Your task to perform on an android device: change text size in settings app Image 0: 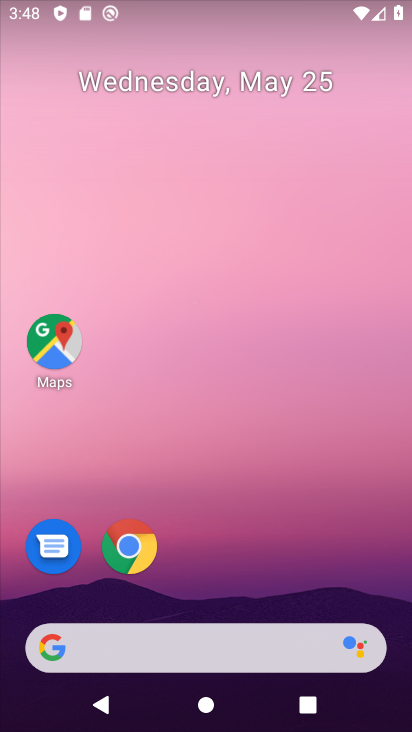
Step 0: drag from (225, 558) to (188, 58)
Your task to perform on an android device: change text size in settings app Image 1: 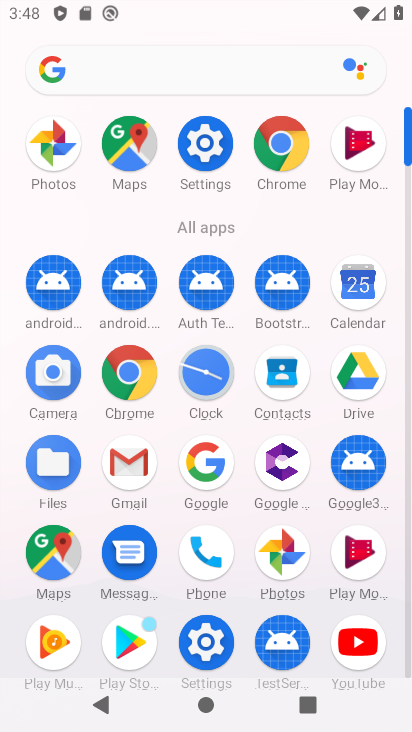
Step 1: click (208, 154)
Your task to perform on an android device: change text size in settings app Image 2: 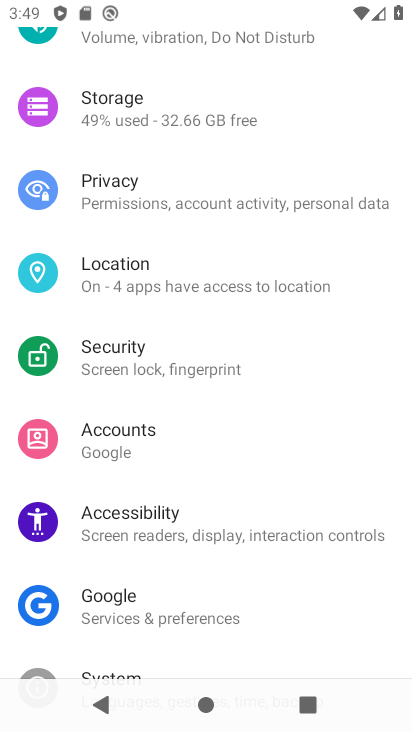
Step 2: drag from (226, 256) to (228, 688)
Your task to perform on an android device: change text size in settings app Image 3: 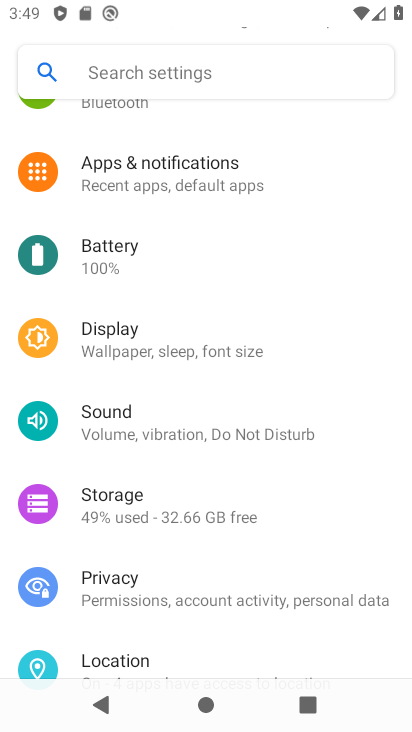
Step 3: click (182, 332)
Your task to perform on an android device: change text size in settings app Image 4: 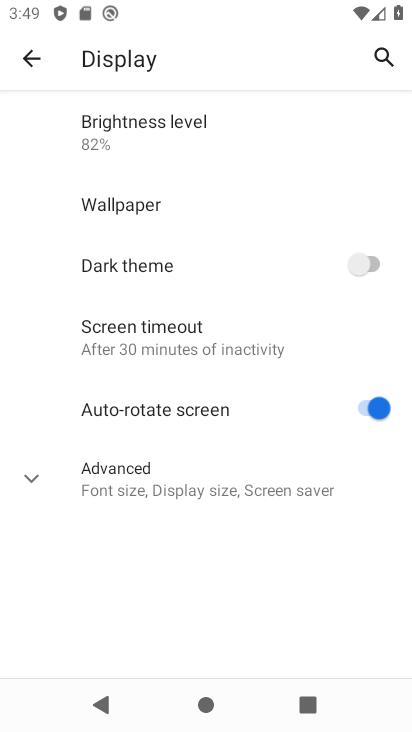
Step 4: click (119, 492)
Your task to perform on an android device: change text size in settings app Image 5: 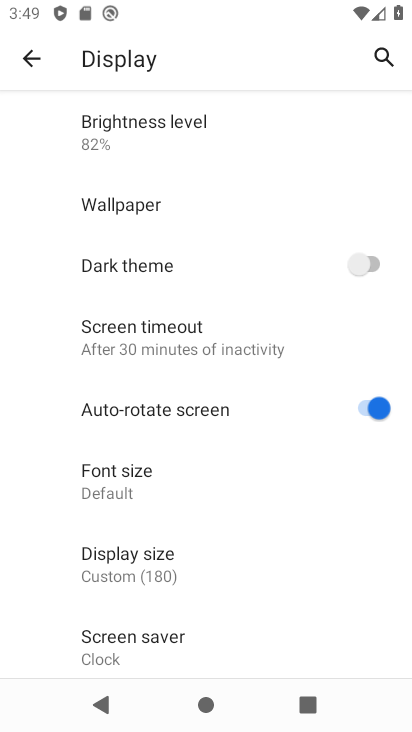
Step 5: click (105, 473)
Your task to perform on an android device: change text size in settings app Image 6: 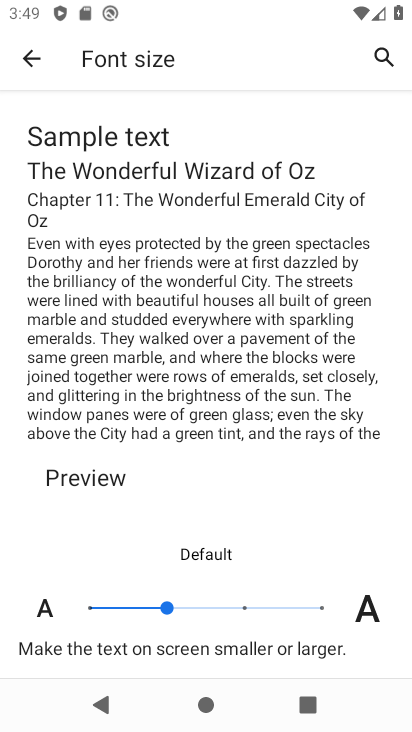
Step 6: click (255, 609)
Your task to perform on an android device: change text size in settings app Image 7: 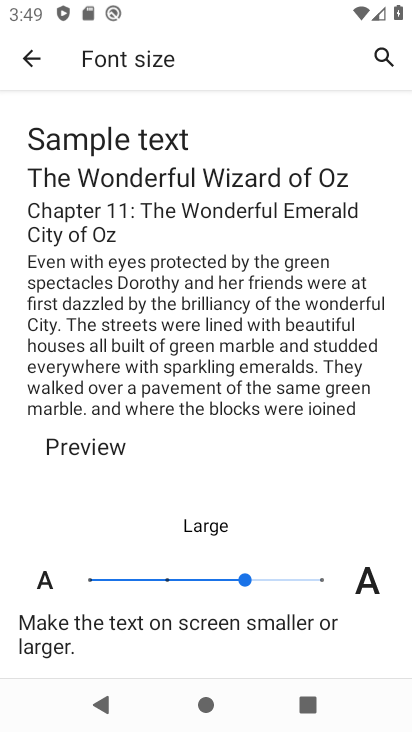
Step 7: task complete